Your task to perform on an android device: turn pop-ups on in chrome Image 0: 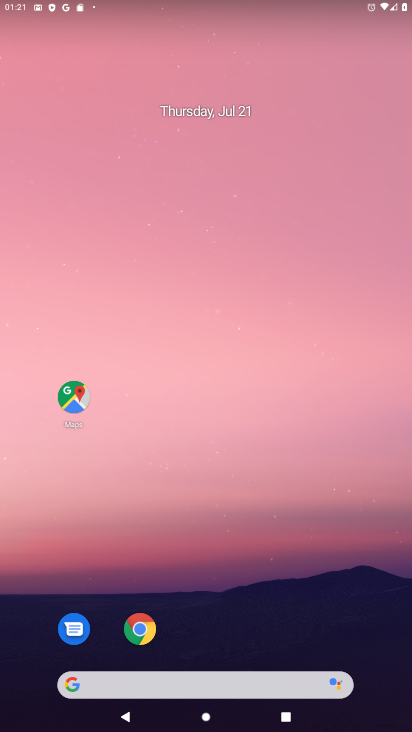
Step 0: click (143, 631)
Your task to perform on an android device: turn pop-ups on in chrome Image 1: 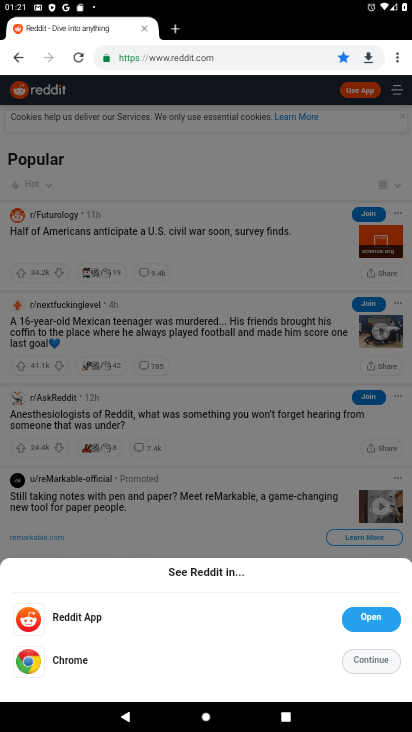
Step 1: click (395, 61)
Your task to perform on an android device: turn pop-ups on in chrome Image 2: 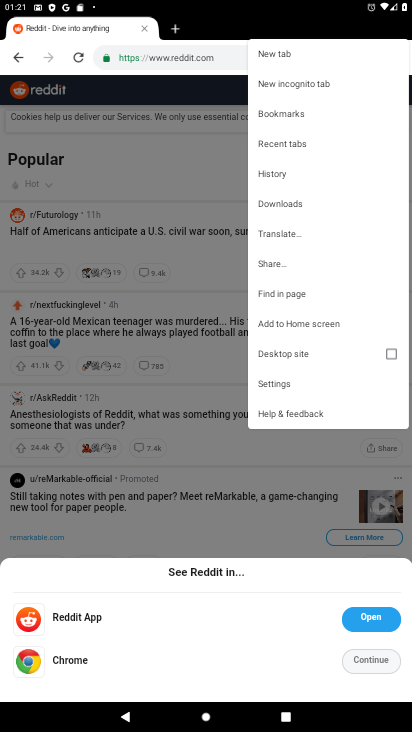
Step 2: click (300, 381)
Your task to perform on an android device: turn pop-ups on in chrome Image 3: 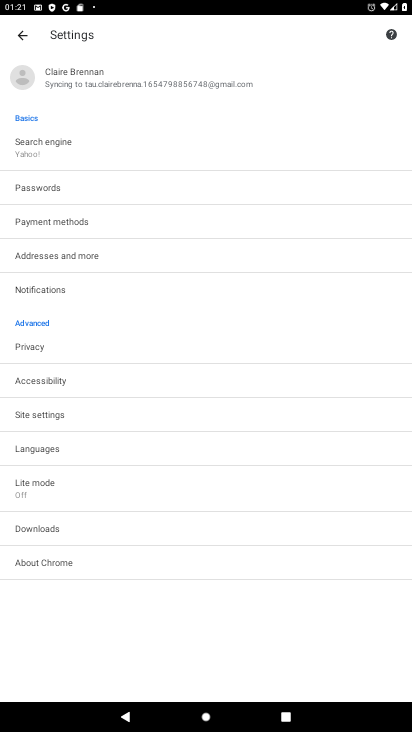
Step 3: click (50, 413)
Your task to perform on an android device: turn pop-ups on in chrome Image 4: 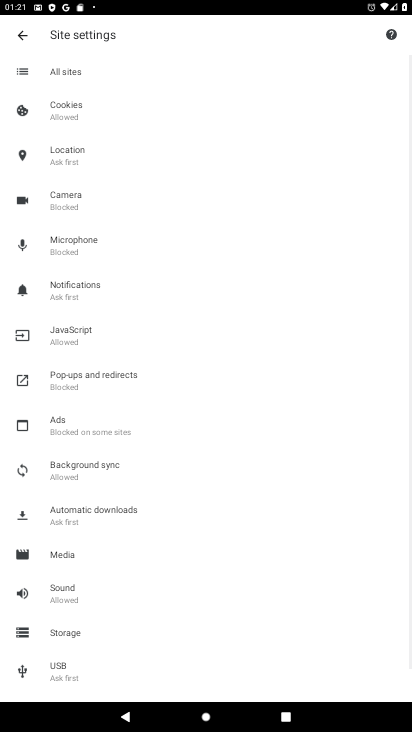
Step 4: click (106, 378)
Your task to perform on an android device: turn pop-ups on in chrome Image 5: 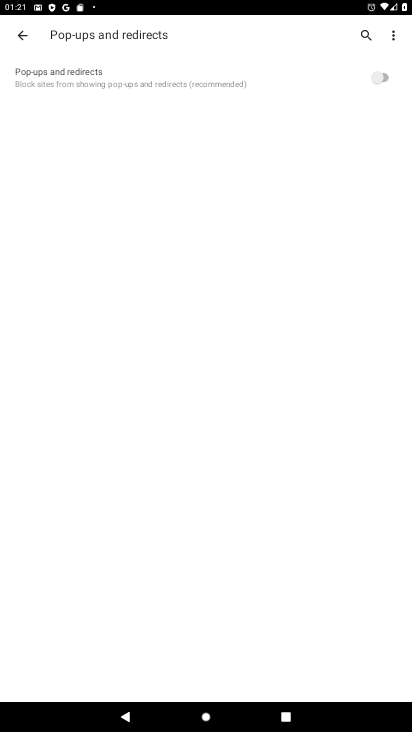
Step 5: click (381, 72)
Your task to perform on an android device: turn pop-ups on in chrome Image 6: 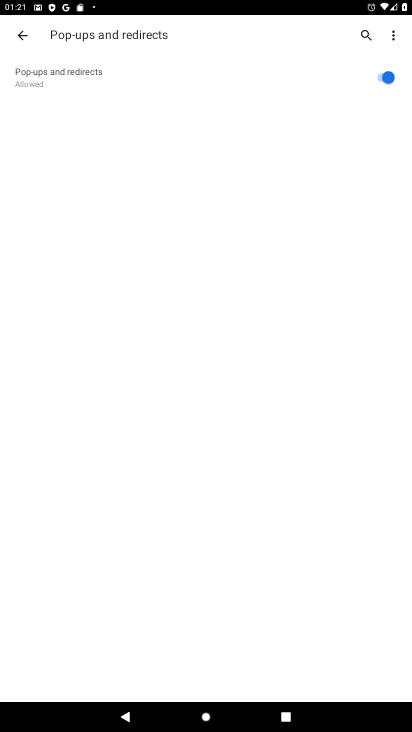
Step 6: task complete